Your task to perform on an android device: Open Android settings Image 0: 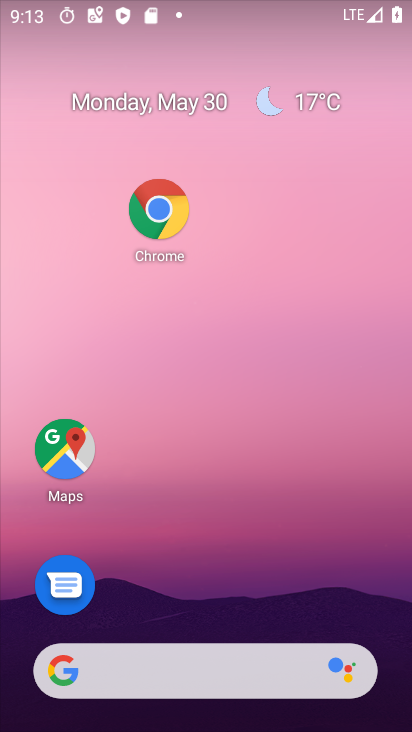
Step 0: drag from (226, 615) to (106, 23)
Your task to perform on an android device: Open Android settings Image 1: 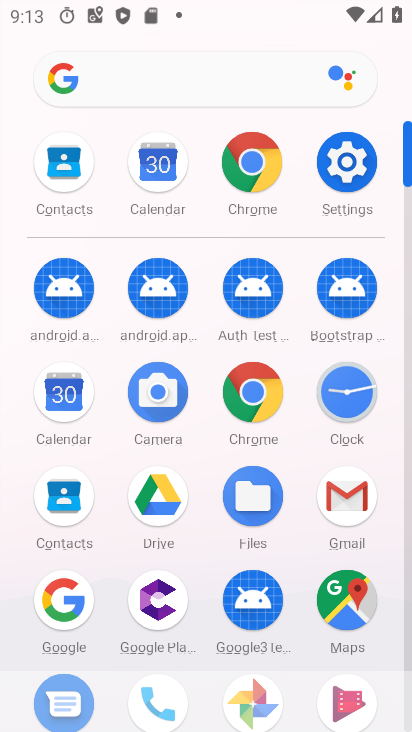
Step 1: click (347, 168)
Your task to perform on an android device: Open Android settings Image 2: 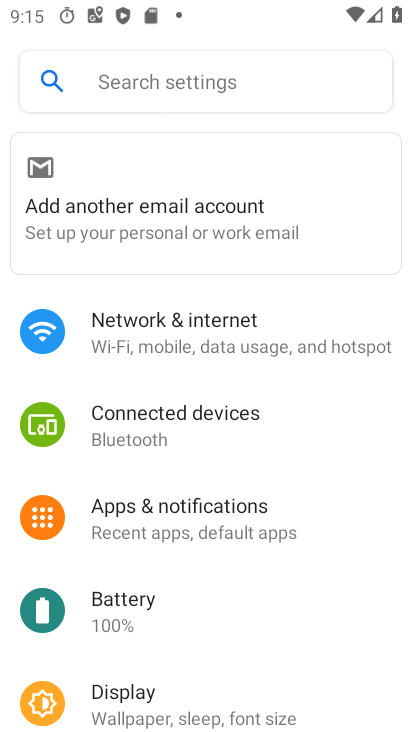
Step 2: drag from (218, 594) to (326, 50)
Your task to perform on an android device: Open Android settings Image 3: 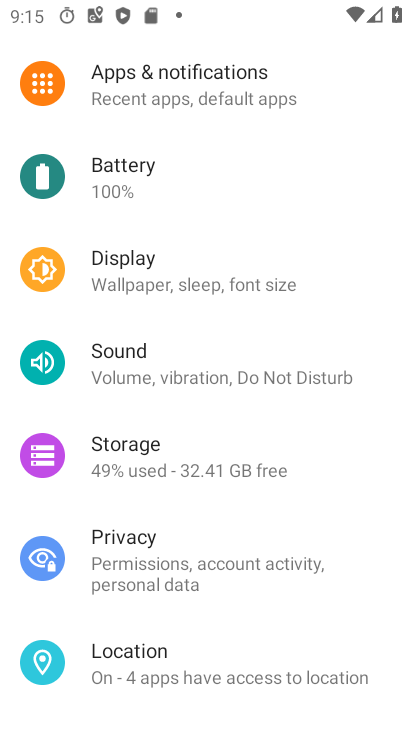
Step 3: drag from (221, 519) to (320, 160)
Your task to perform on an android device: Open Android settings Image 4: 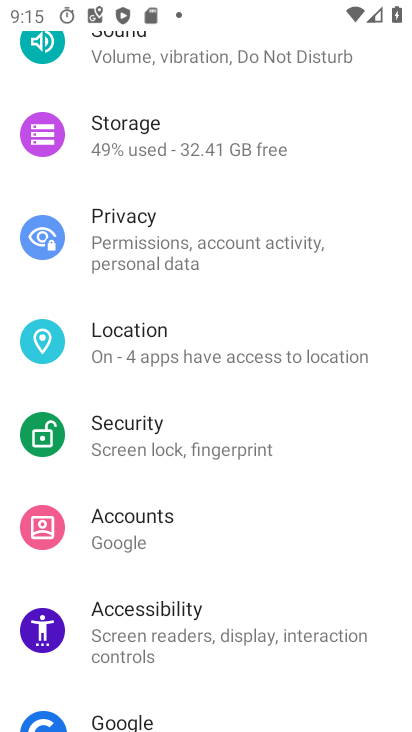
Step 4: drag from (242, 412) to (343, 191)
Your task to perform on an android device: Open Android settings Image 5: 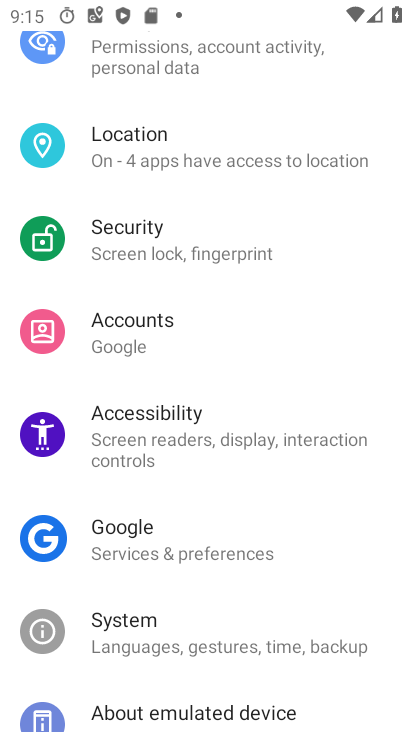
Step 5: click (160, 712)
Your task to perform on an android device: Open Android settings Image 6: 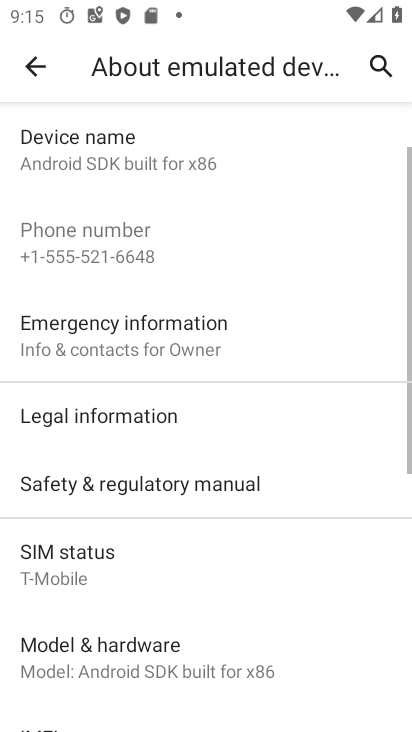
Step 6: drag from (172, 630) to (169, 14)
Your task to perform on an android device: Open Android settings Image 7: 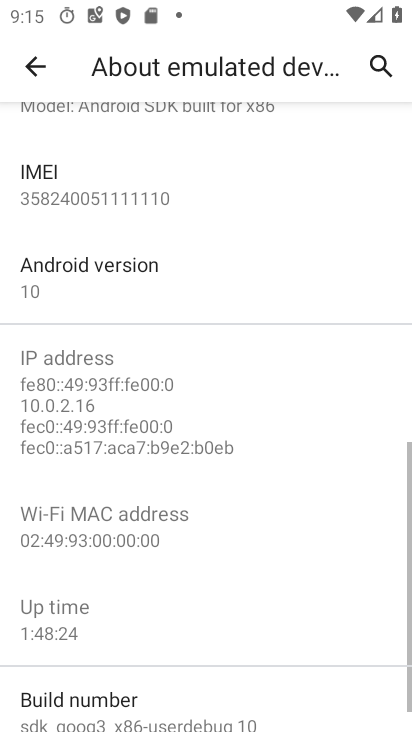
Step 7: click (119, 264)
Your task to perform on an android device: Open Android settings Image 8: 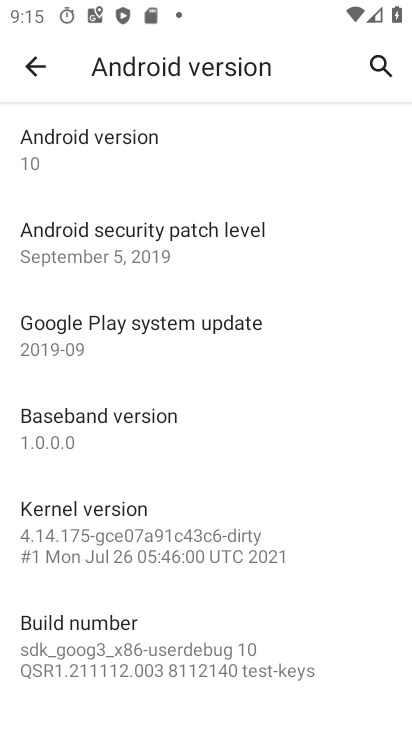
Step 8: task complete